Your task to perform on an android device: Open ESPN.com Image 0: 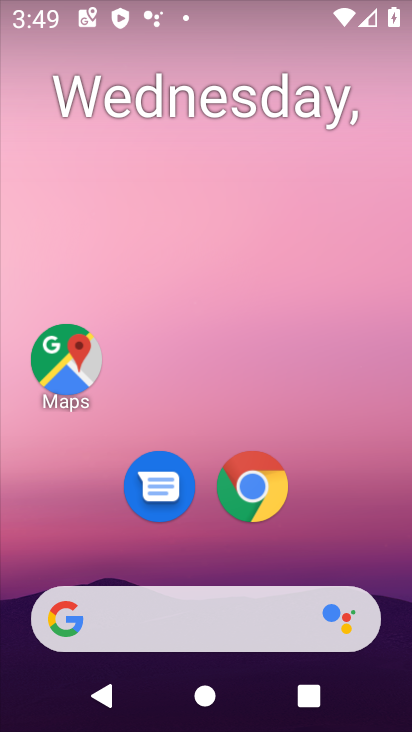
Step 0: click (263, 496)
Your task to perform on an android device: Open ESPN.com Image 1: 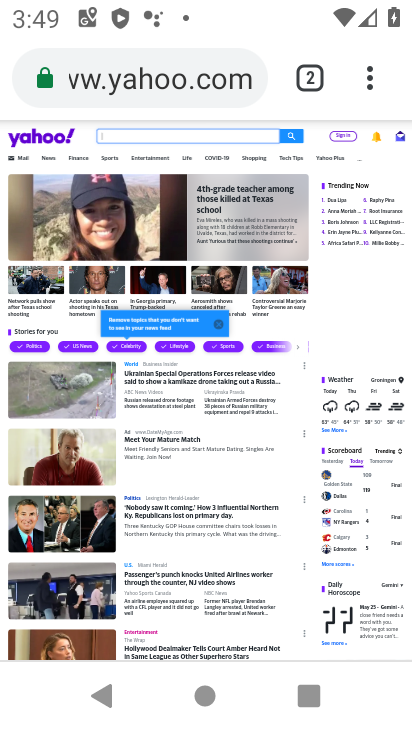
Step 1: click (299, 93)
Your task to perform on an android device: Open ESPN.com Image 2: 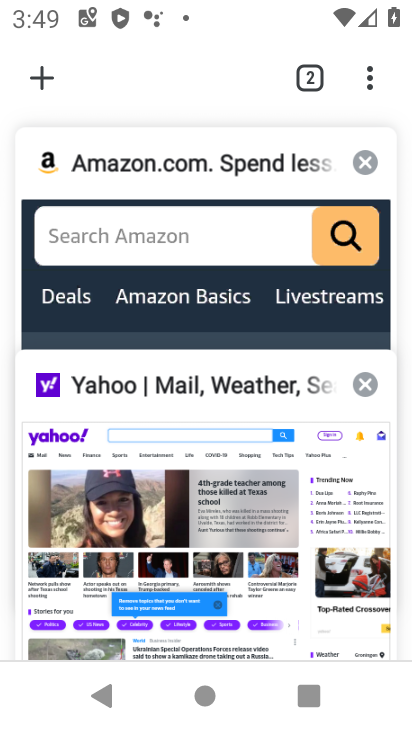
Step 2: click (372, 161)
Your task to perform on an android device: Open ESPN.com Image 3: 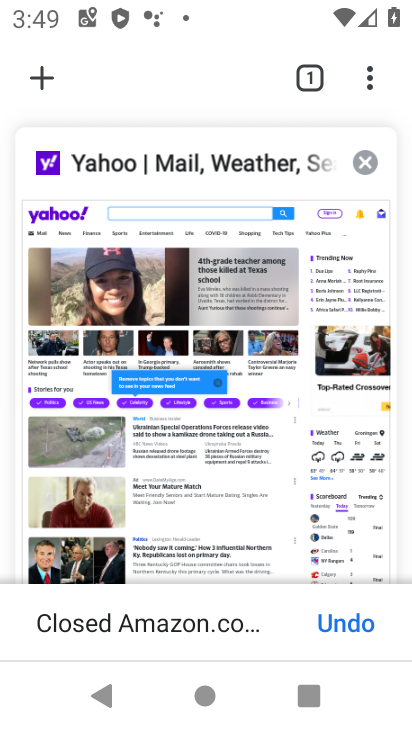
Step 3: click (364, 165)
Your task to perform on an android device: Open ESPN.com Image 4: 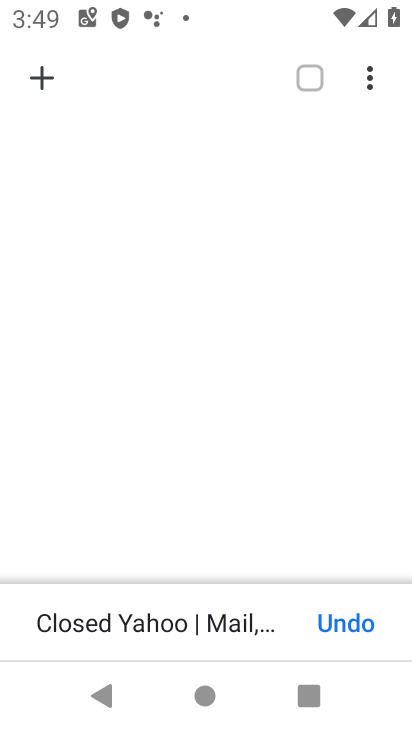
Step 4: click (50, 75)
Your task to perform on an android device: Open ESPN.com Image 5: 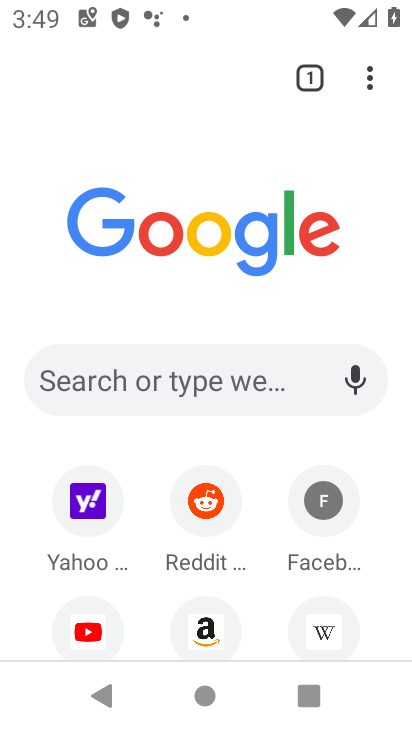
Step 5: drag from (116, 616) to (160, 324)
Your task to perform on an android device: Open ESPN.com Image 6: 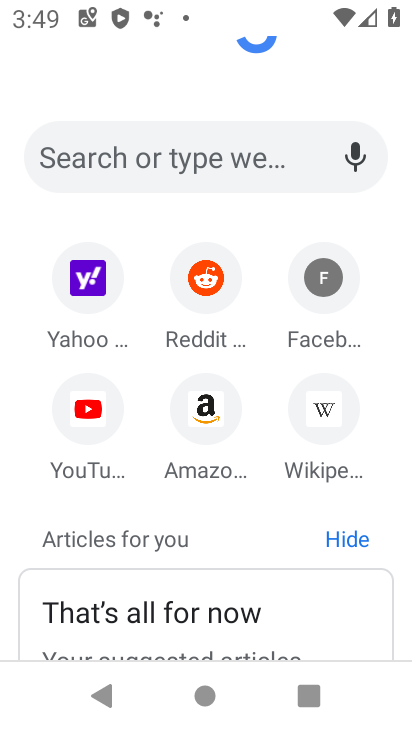
Step 6: click (245, 152)
Your task to perform on an android device: Open ESPN.com Image 7: 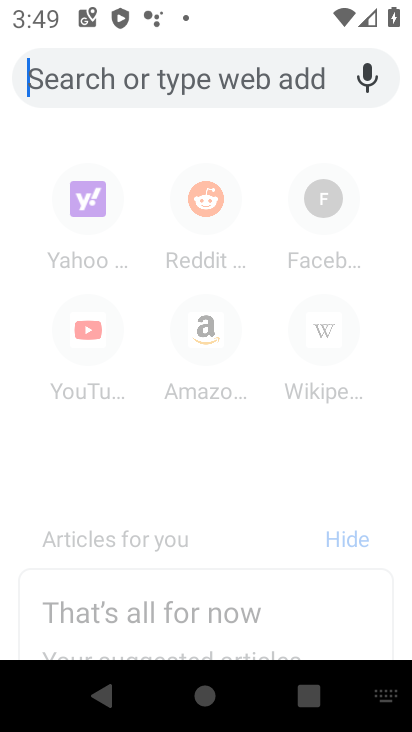
Step 7: type "espn.com"
Your task to perform on an android device: Open ESPN.com Image 8: 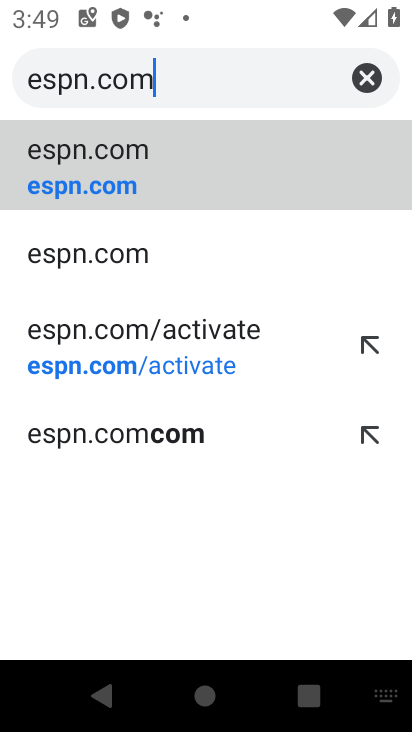
Step 8: click (90, 161)
Your task to perform on an android device: Open ESPN.com Image 9: 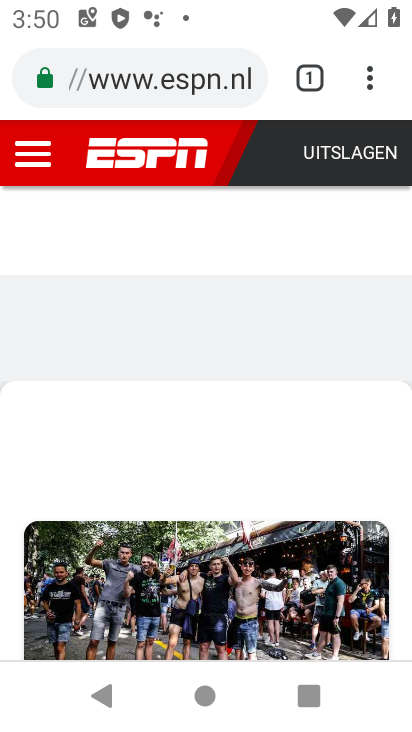
Step 9: task complete